Your task to perform on an android device: Set an alarm for 4pm Image 0: 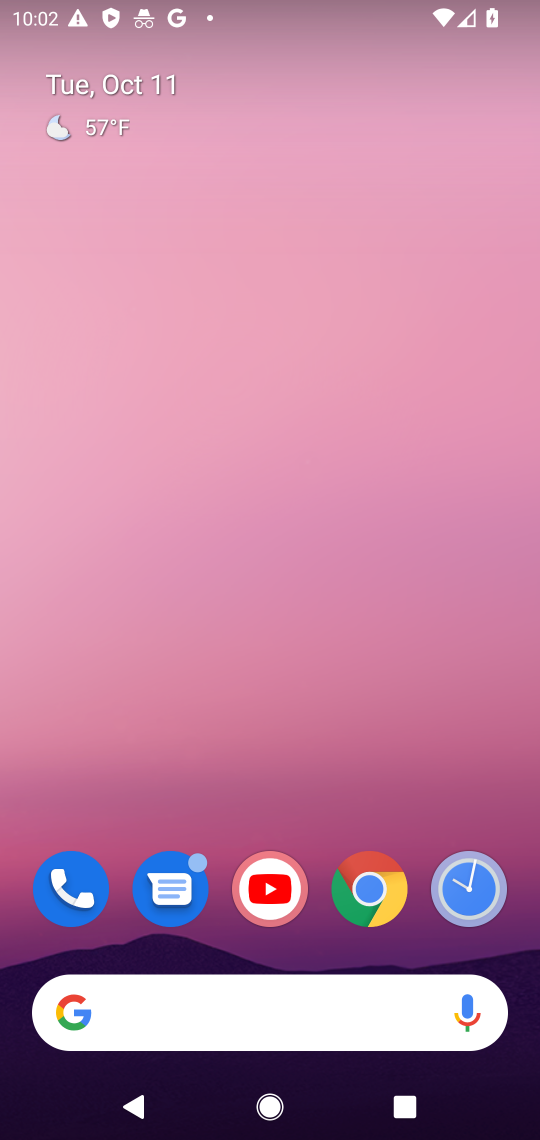
Step 0: press home button
Your task to perform on an android device: Set an alarm for 4pm Image 1: 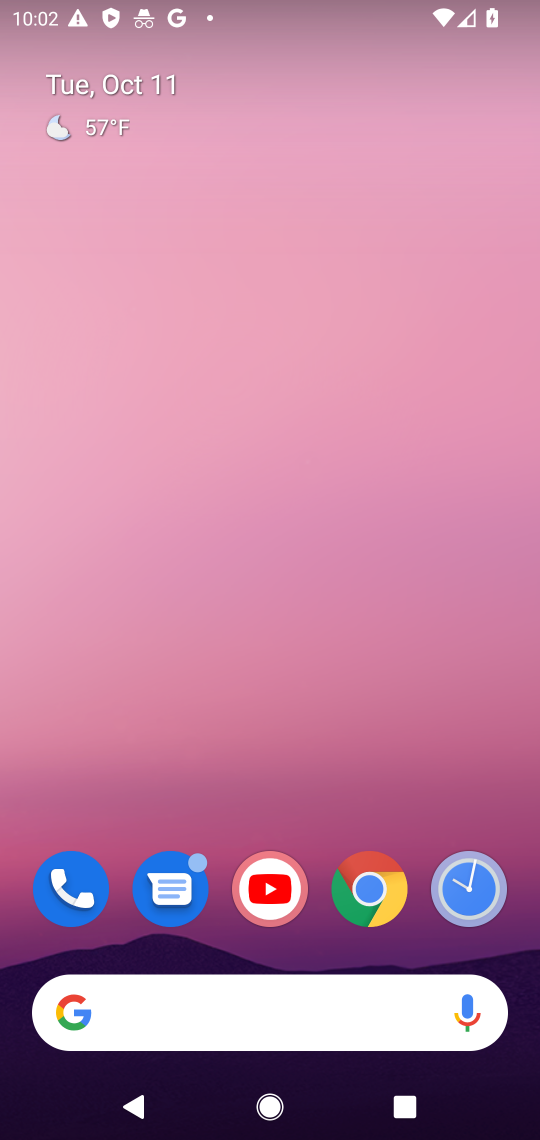
Step 1: drag from (315, 962) to (367, 129)
Your task to perform on an android device: Set an alarm for 4pm Image 2: 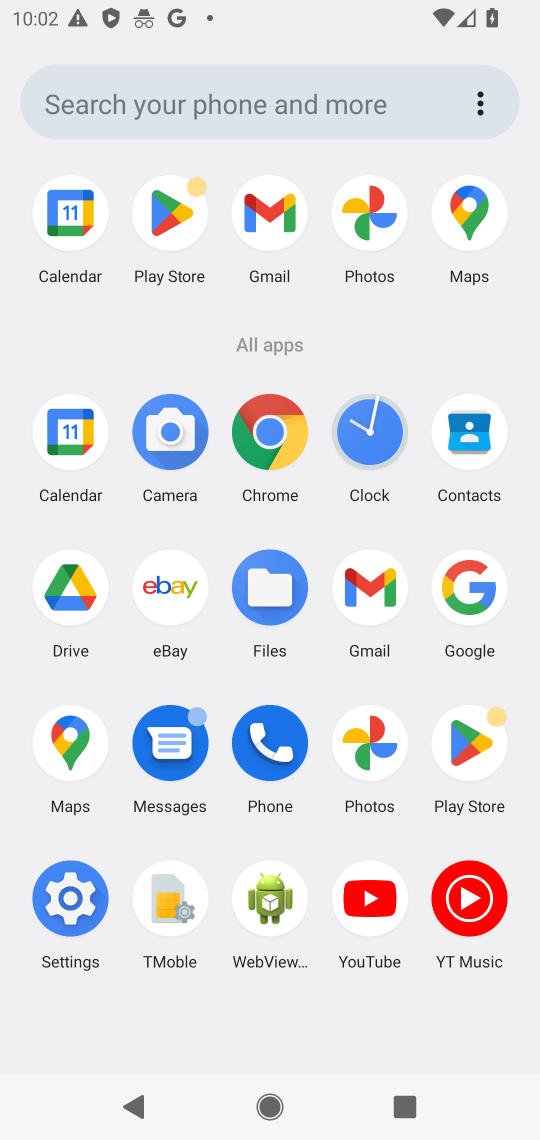
Step 2: click (378, 436)
Your task to perform on an android device: Set an alarm for 4pm Image 3: 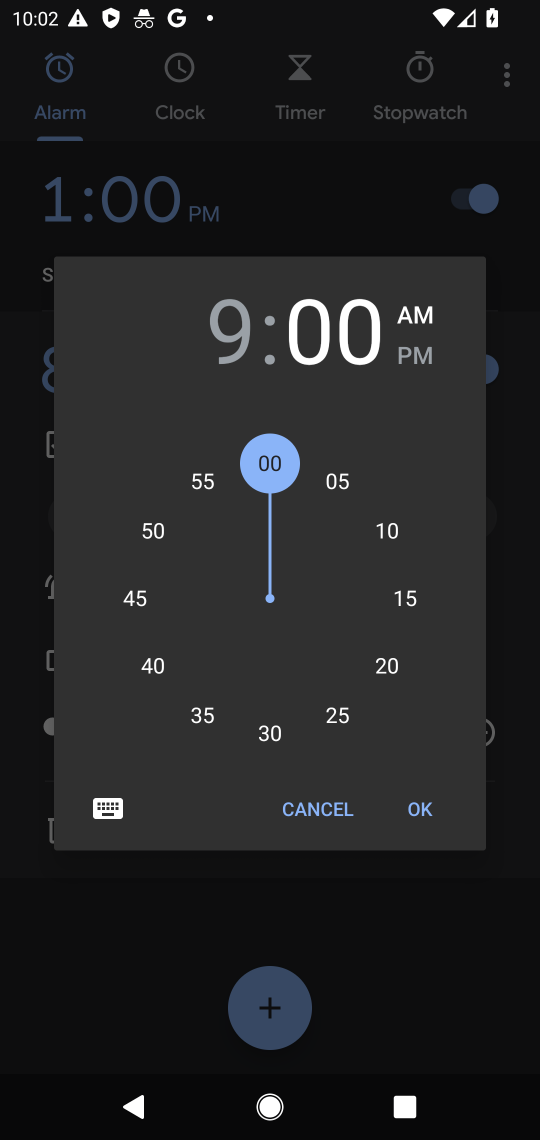
Step 3: click (233, 335)
Your task to perform on an android device: Set an alarm for 4pm Image 4: 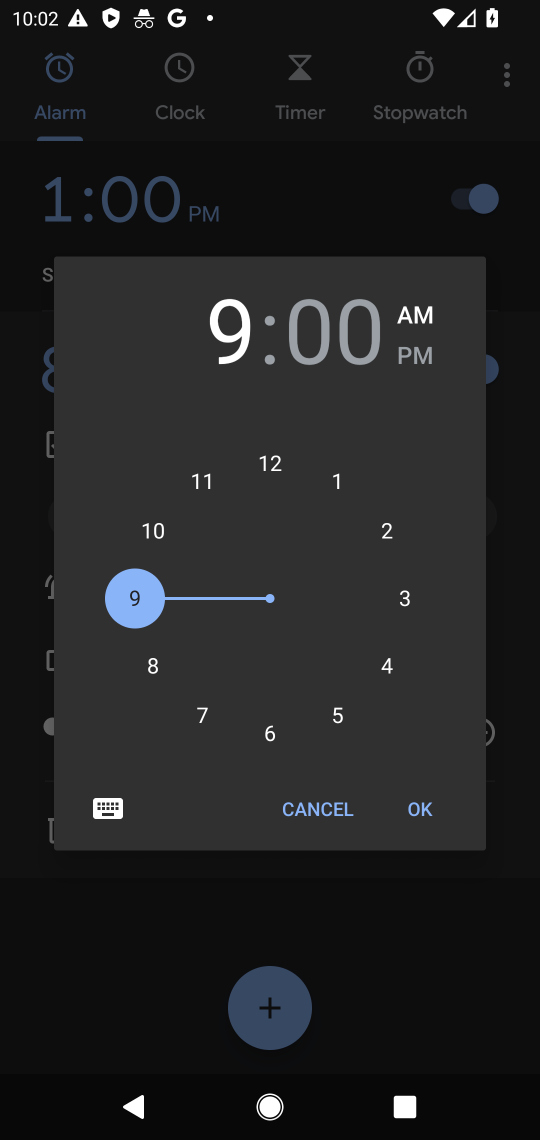
Step 4: click (387, 669)
Your task to perform on an android device: Set an alarm for 4pm Image 5: 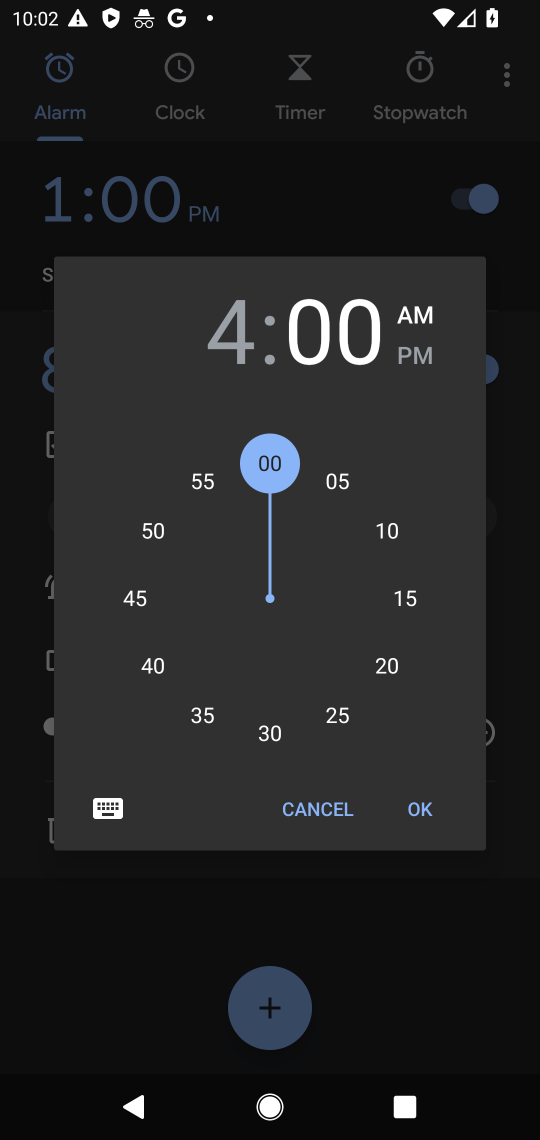
Step 5: click (416, 351)
Your task to perform on an android device: Set an alarm for 4pm Image 6: 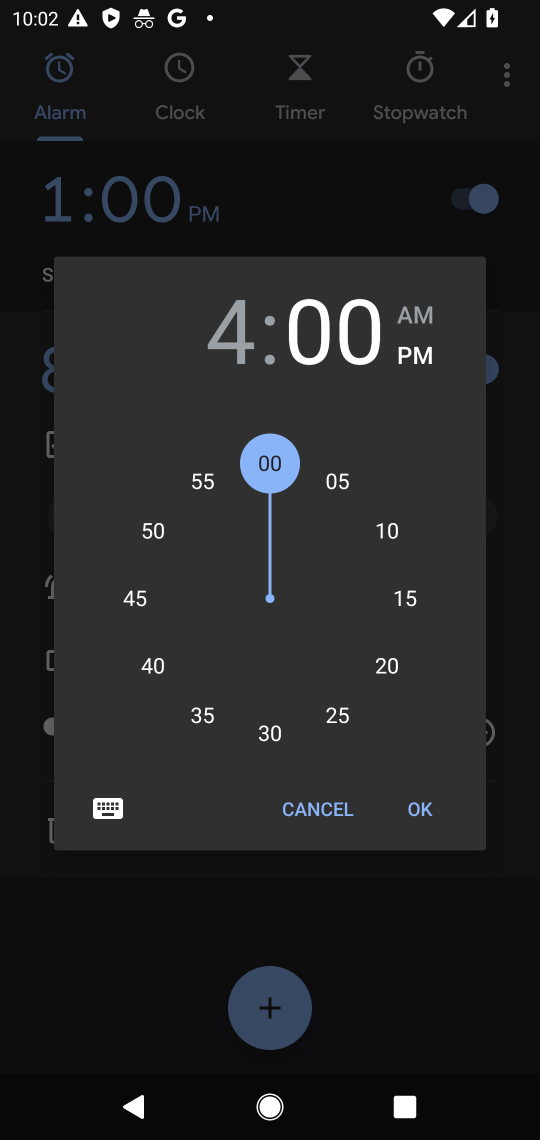
Step 6: click (431, 820)
Your task to perform on an android device: Set an alarm for 4pm Image 7: 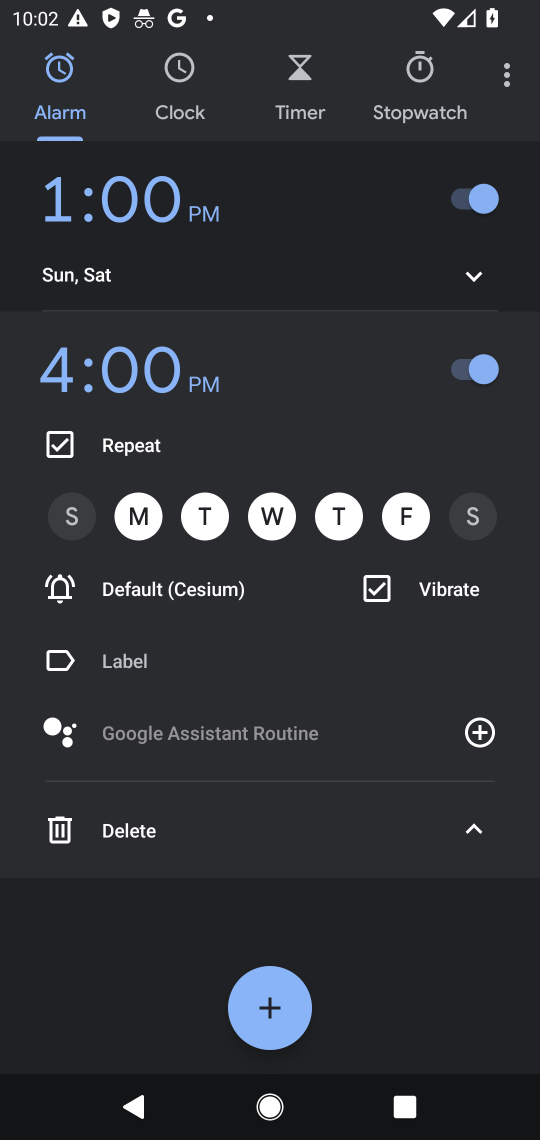
Step 7: task complete